Your task to perform on an android device: see creations saved in the google photos Image 0: 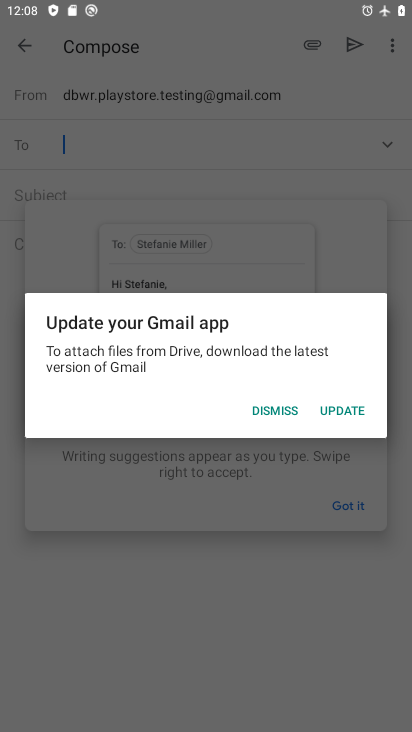
Step 0: press home button
Your task to perform on an android device: see creations saved in the google photos Image 1: 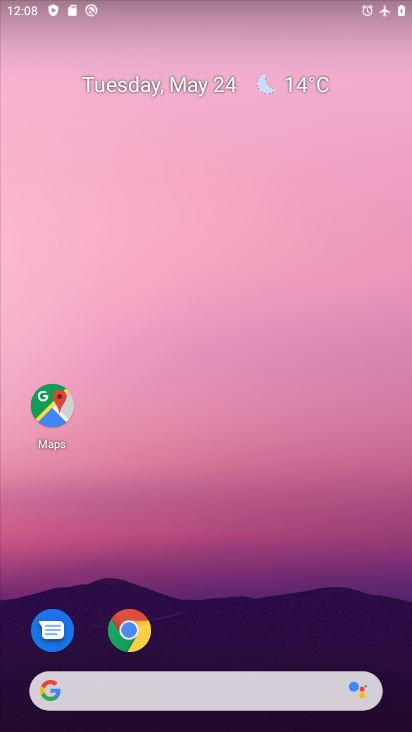
Step 1: drag from (350, 497) to (299, 143)
Your task to perform on an android device: see creations saved in the google photos Image 2: 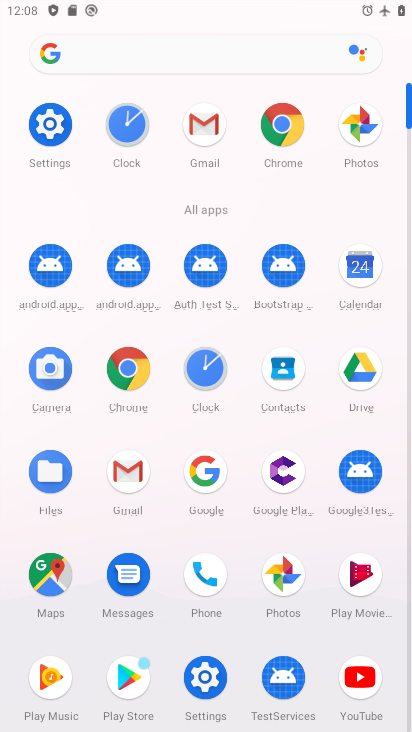
Step 2: click (277, 572)
Your task to perform on an android device: see creations saved in the google photos Image 3: 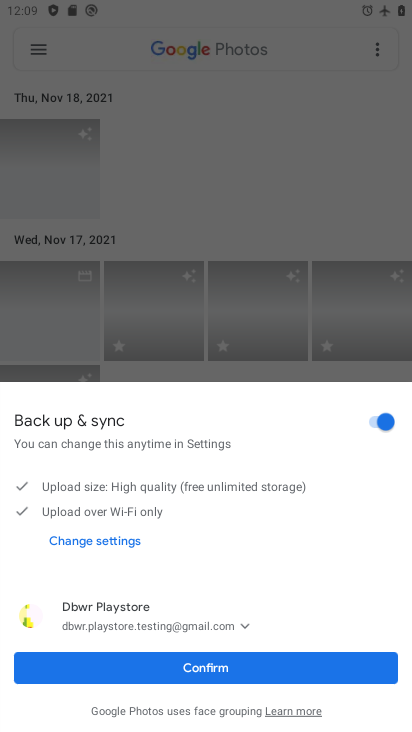
Step 3: click (224, 668)
Your task to perform on an android device: see creations saved in the google photos Image 4: 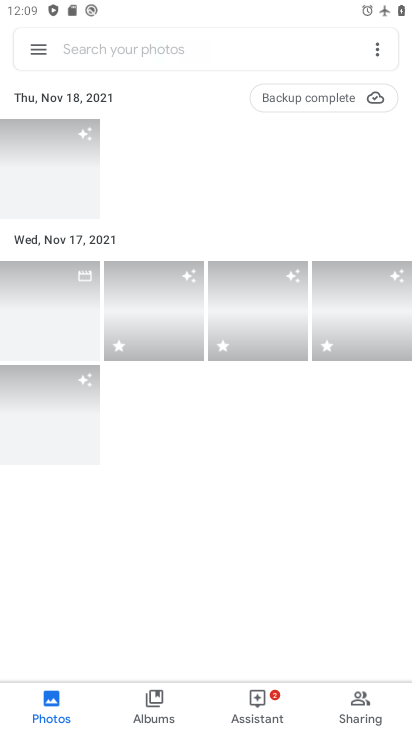
Step 4: click (104, 52)
Your task to perform on an android device: see creations saved in the google photos Image 5: 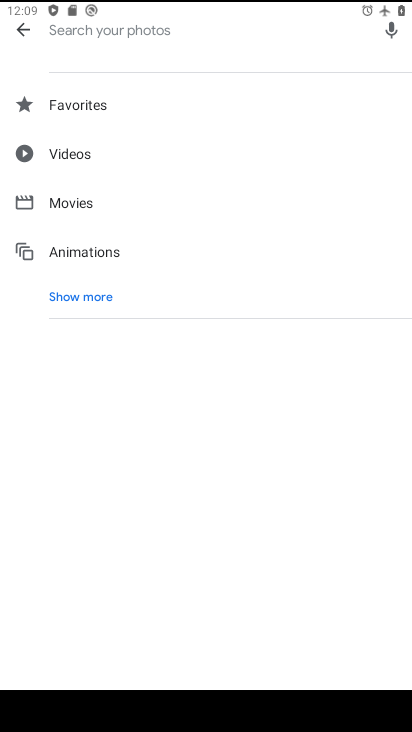
Step 5: type "creations "
Your task to perform on an android device: see creations saved in the google photos Image 6: 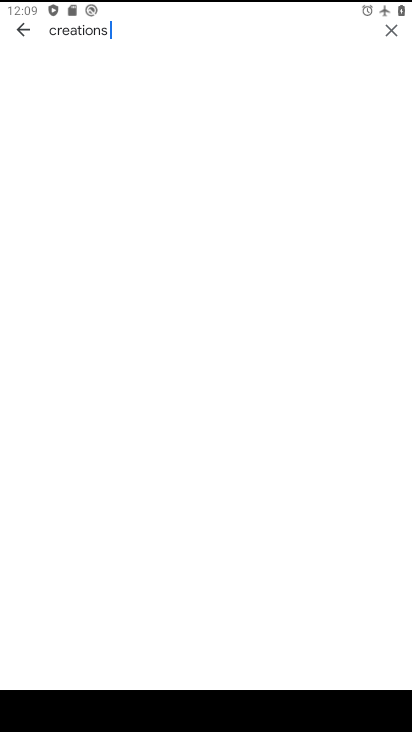
Step 6: task complete